Your task to perform on an android device: Open privacy settings Image 0: 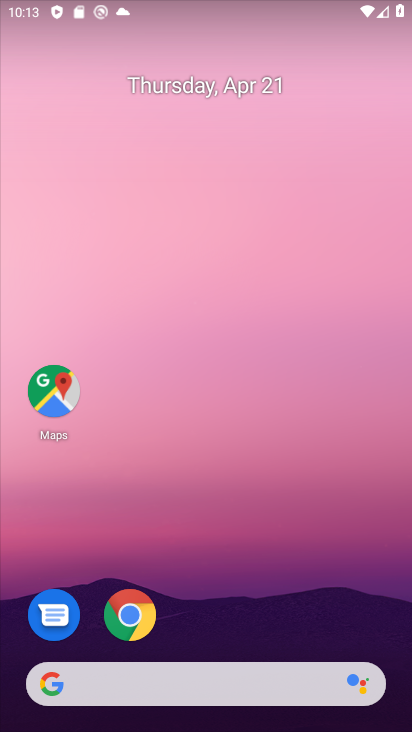
Step 0: drag from (225, 641) to (259, 64)
Your task to perform on an android device: Open privacy settings Image 1: 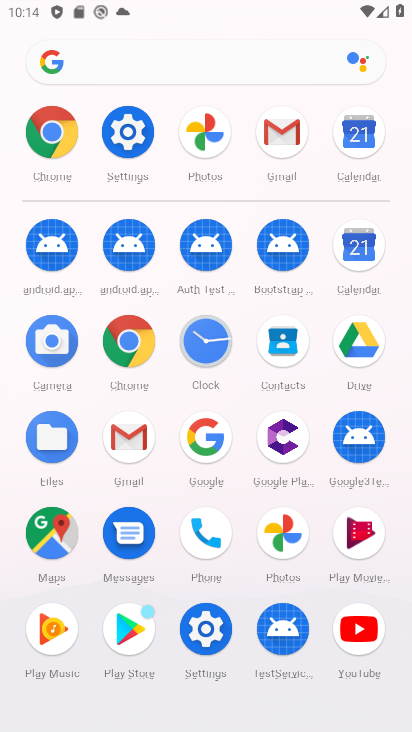
Step 1: click (203, 620)
Your task to perform on an android device: Open privacy settings Image 2: 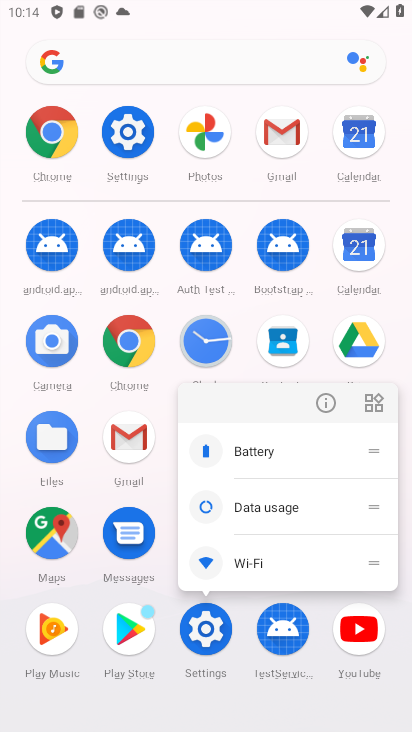
Step 2: click (203, 620)
Your task to perform on an android device: Open privacy settings Image 3: 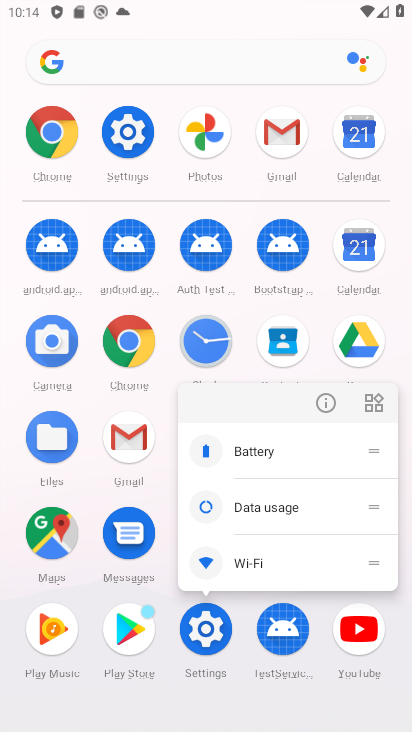
Step 3: click (203, 623)
Your task to perform on an android device: Open privacy settings Image 4: 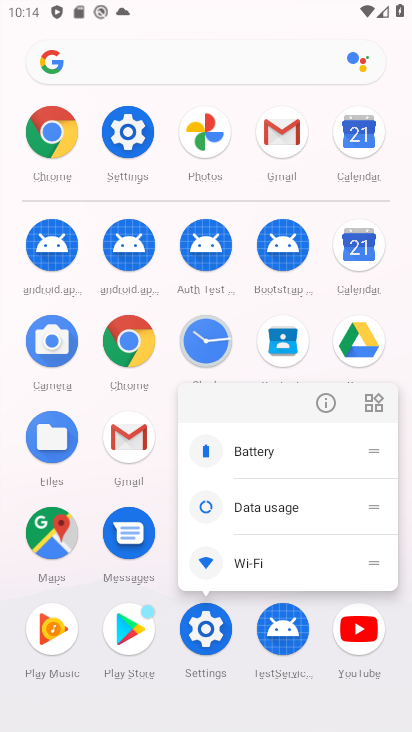
Step 4: click (203, 623)
Your task to perform on an android device: Open privacy settings Image 5: 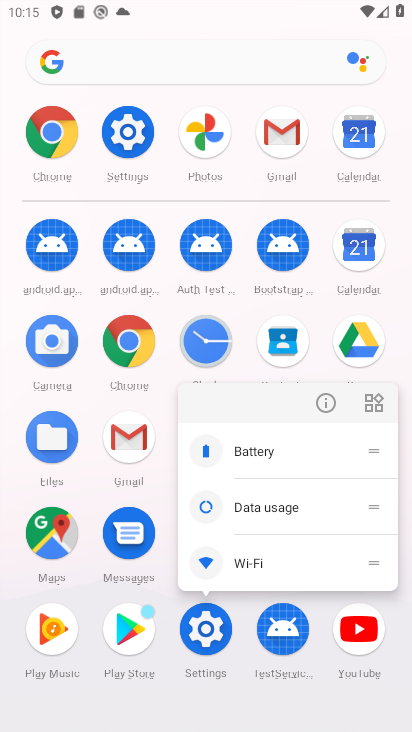
Step 5: click (203, 622)
Your task to perform on an android device: Open privacy settings Image 6: 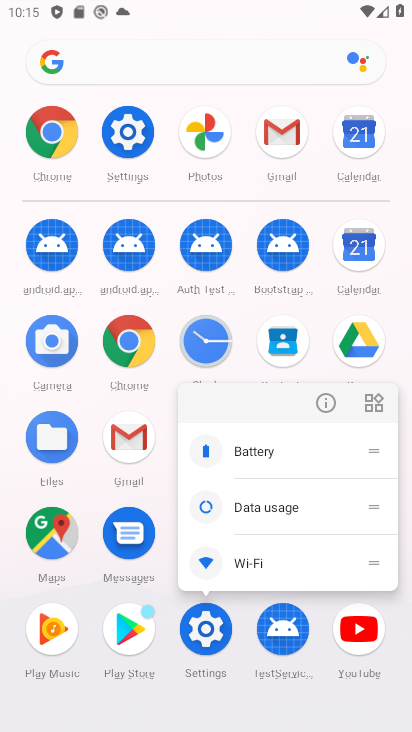
Step 6: click (203, 622)
Your task to perform on an android device: Open privacy settings Image 7: 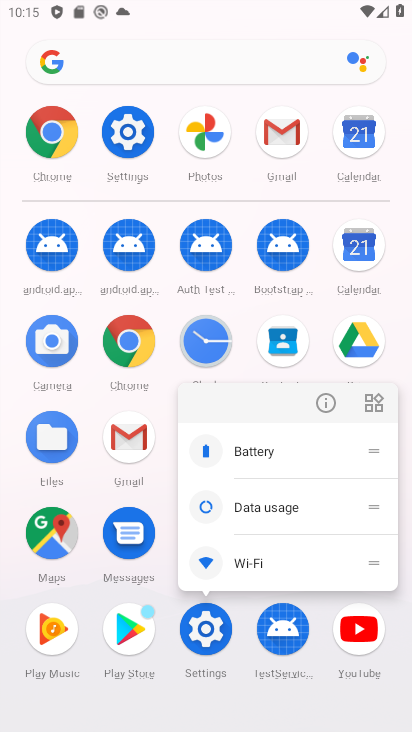
Step 7: click (126, 123)
Your task to perform on an android device: Open privacy settings Image 8: 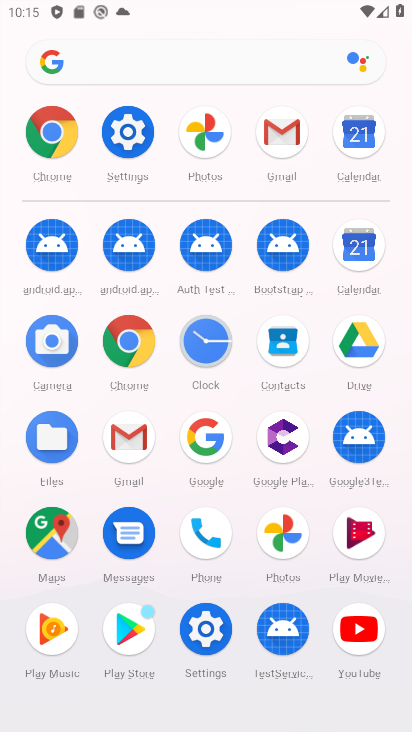
Step 8: click (126, 121)
Your task to perform on an android device: Open privacy settings Image 9: 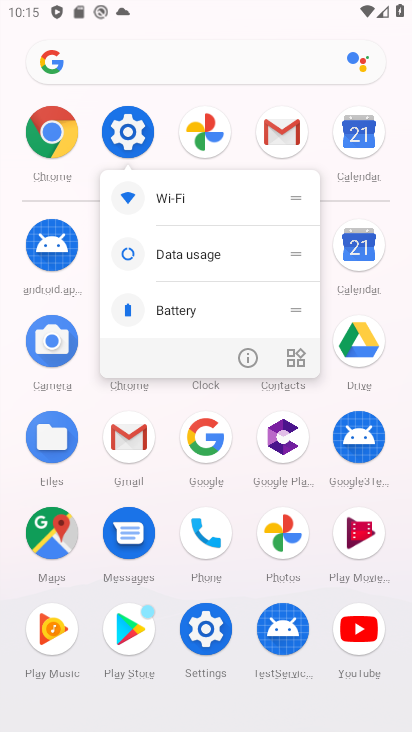
Step 9: click (126, 124)
Your task to perform on an android device: Open privacy settings Image 10: 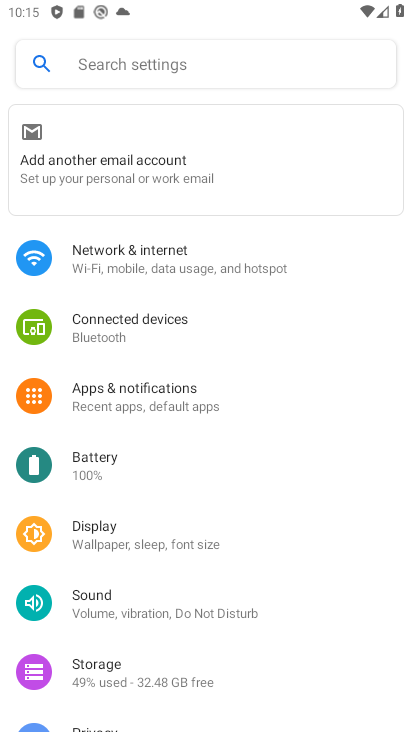
Step 10: drag from (147, 656) to (159, 197)
Your task to perform on an android device: Open privacy settings Image 11: 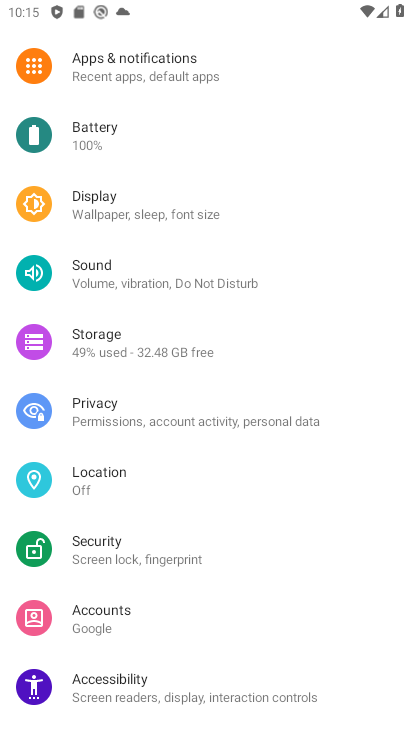
Step 11: click (129, 400)
Your task to perform on an android device: Open privacy settings Image 12: 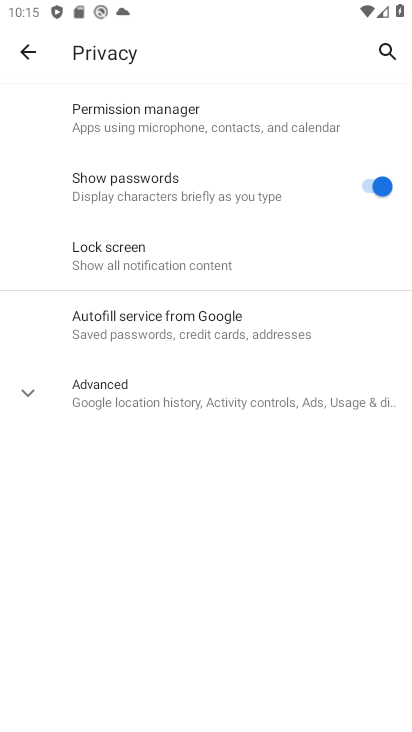
Step 12: click (31, 384)
Your task to perform on an android device: Open privacy settings Image 13: 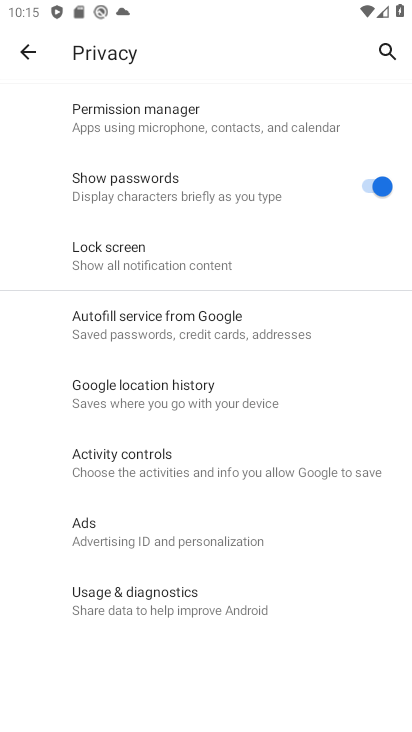
Step 13: task complete